Your task to perform on an android device: change text size in settings app Image 0: 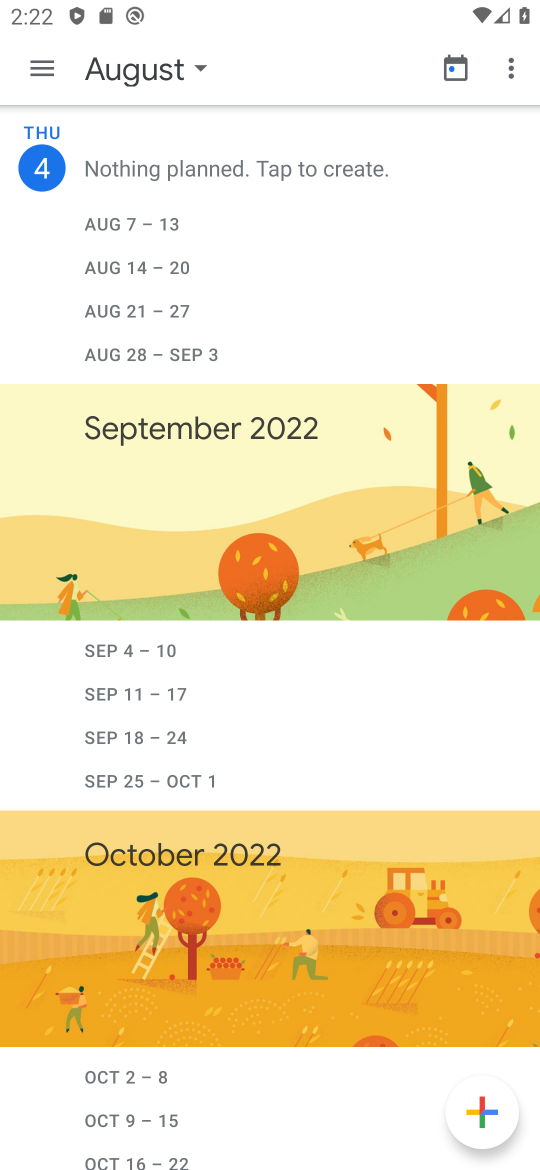
Step 0: press home button
Your task to perform on an android device: change text size in settings app Image 1: 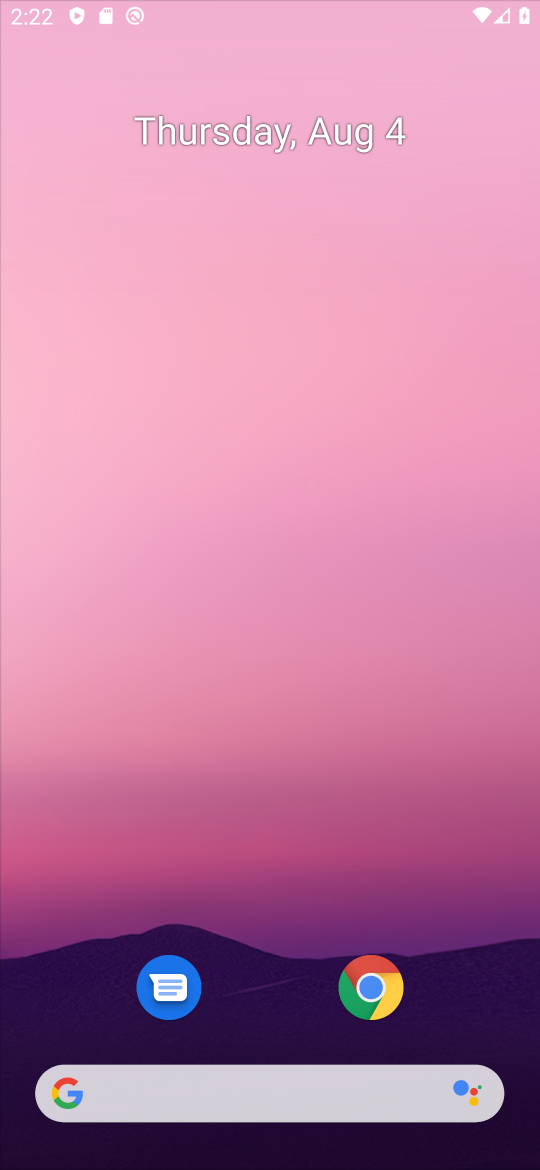
Step 1: drag from (503, 1003) to (267, 223)
Your task to perform on an android device: change text size in settings app Image 2: 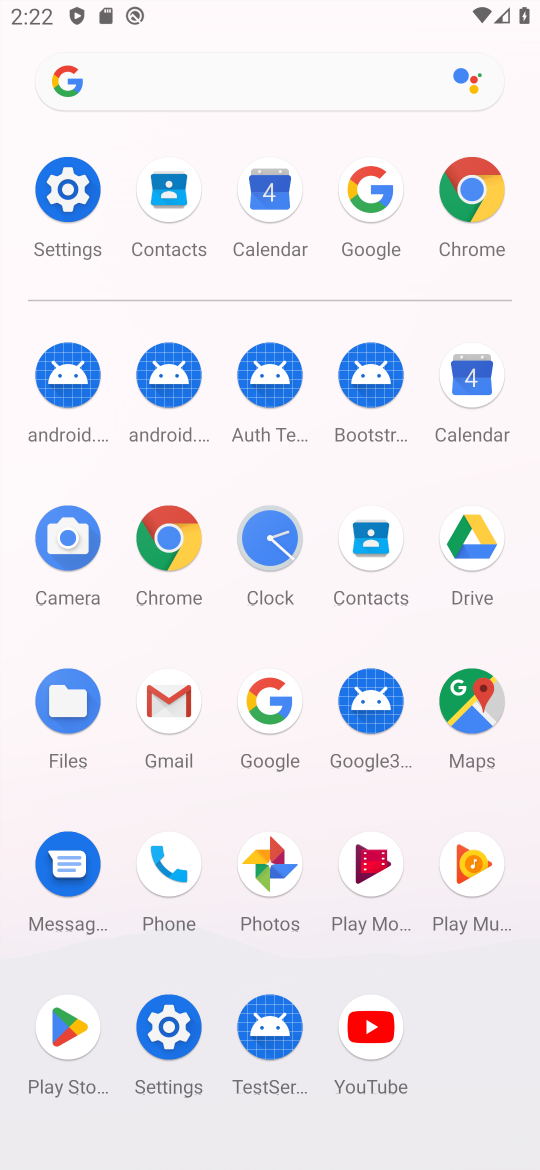
Step 2: click (169, 1038)
Your task to perform on an android device: change text size in settings app Image 3: 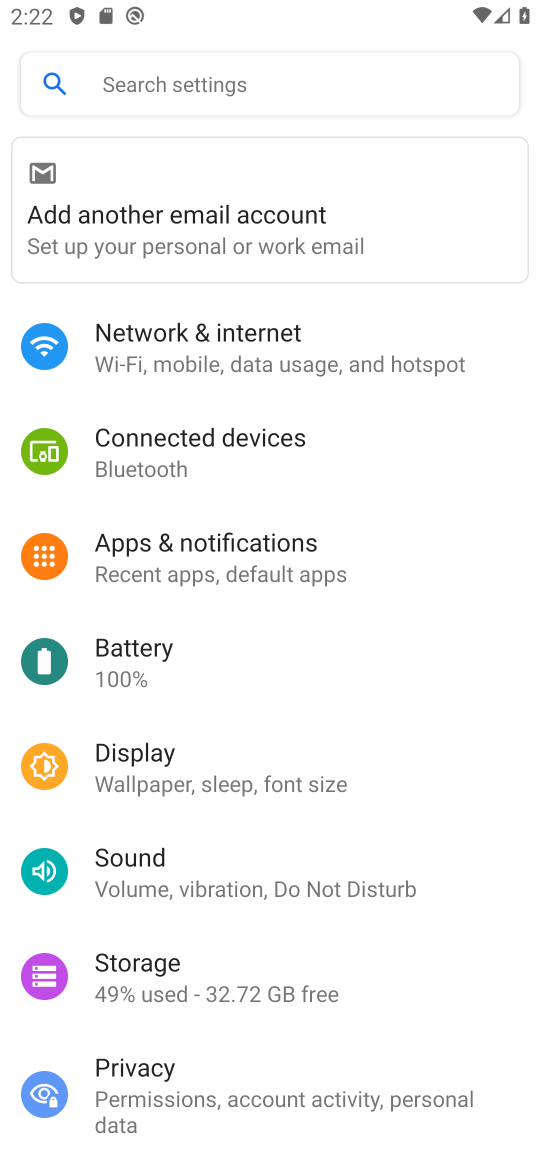
Step 3: click (194, 783)
Your task to perform on an android device: change text size in settings app Image 4: 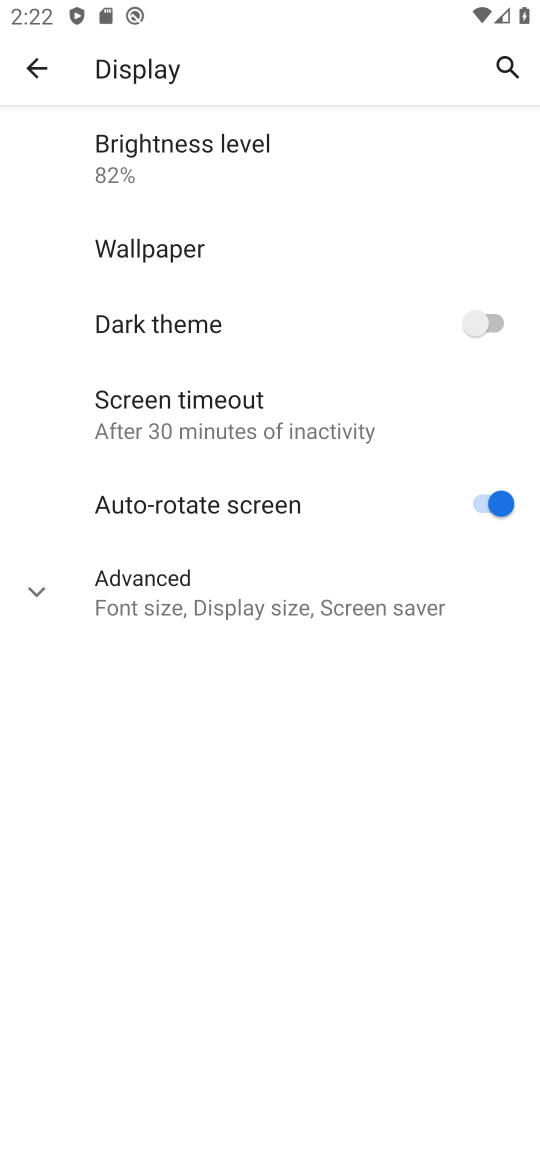
Step 4: click (135, 587)
Your task to perform on an android device: change text size in settings app Image 5: 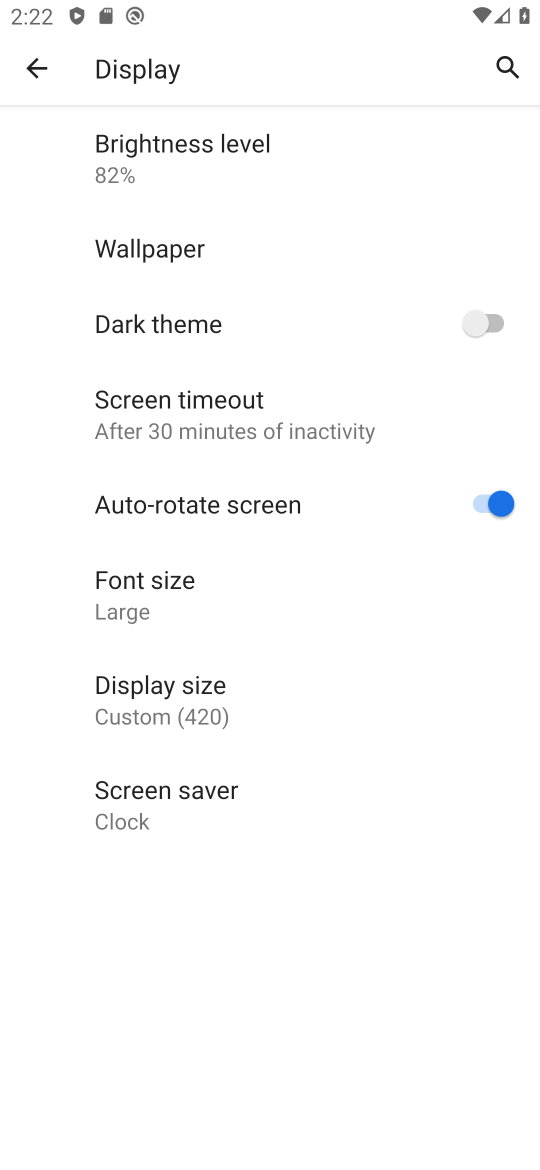
Step 5: click (195, 602)
Your task to perform on an android device: change text size in settings app Image 6: 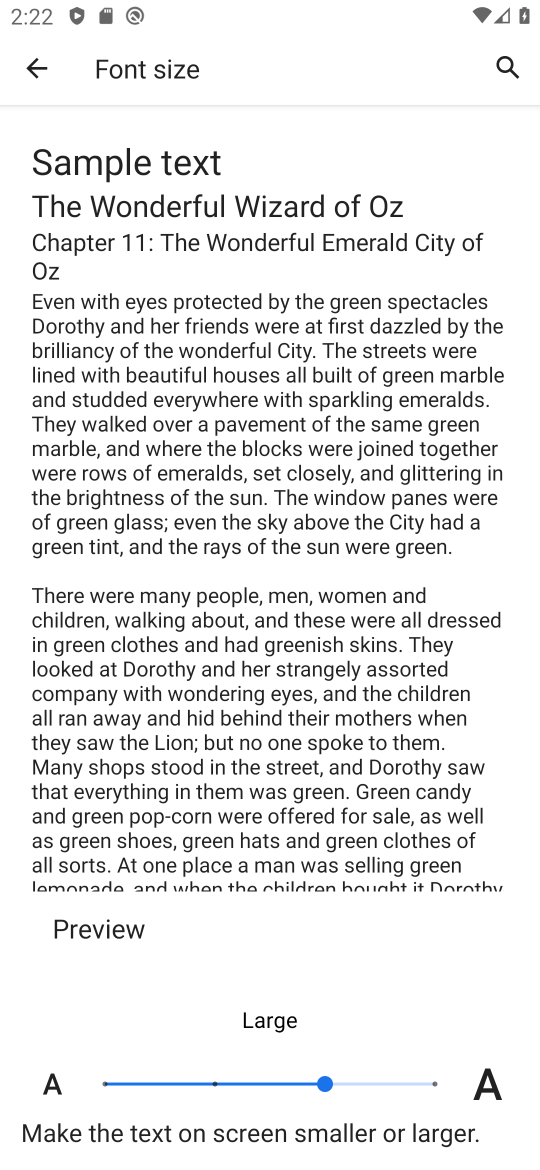
Step 6: click (433, 1079)
Your task to perform on an android device: change text size in settings app Image 7: 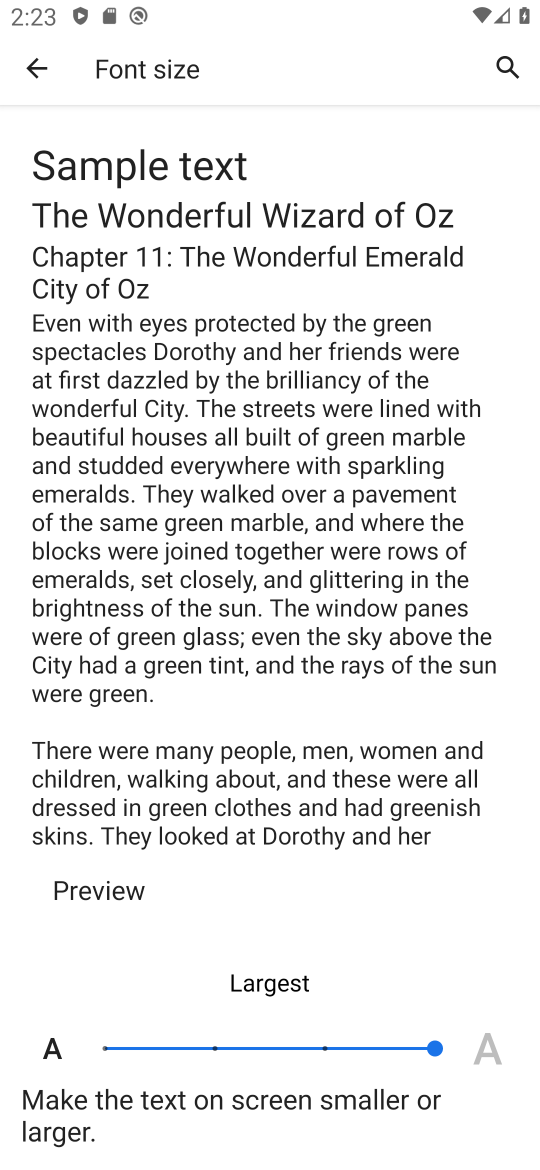
Step 7: task complete